Your task to perform on an android device: Go to Google Image 0: 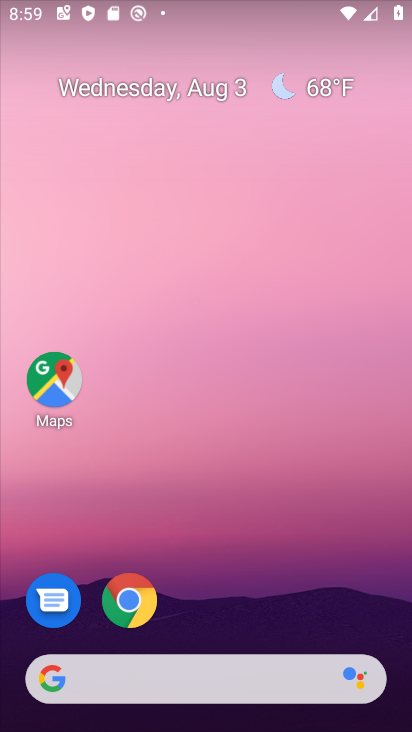
Step 0: click (48, 679)
Your task to perform on an android device: Go to Google Image 1: 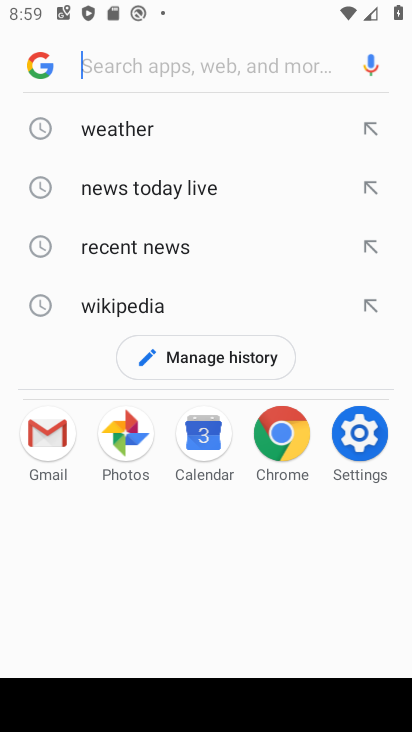
Step 1: click (45, 69)
Your task to perform on an android device: Go to Google Image 2: 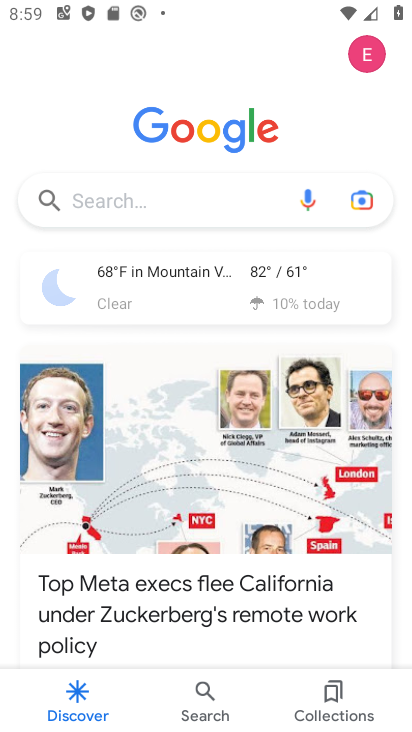
Step 2: task complete